Your task to perform on an android device: Open the web browser Image 0: 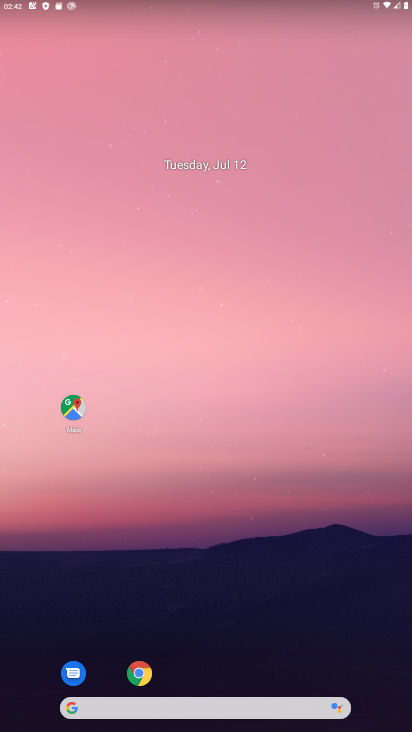
Step 0: click (142, 671)
Your task to perform on an android device: Open the web browser Image 1: 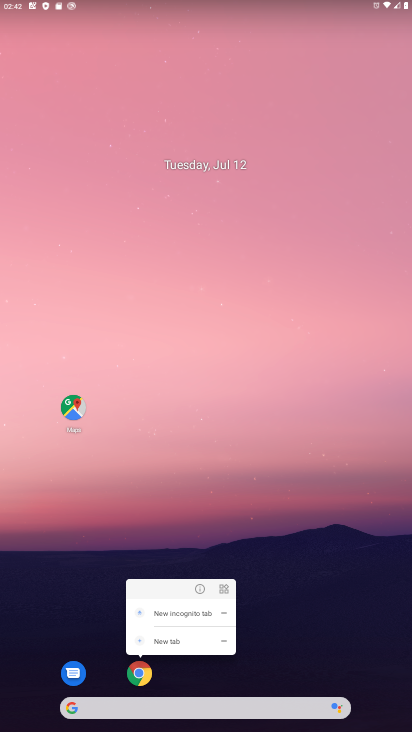
Step 1: click (139, 678)
Your task to perform on an android device: Open the web browser Image 2: 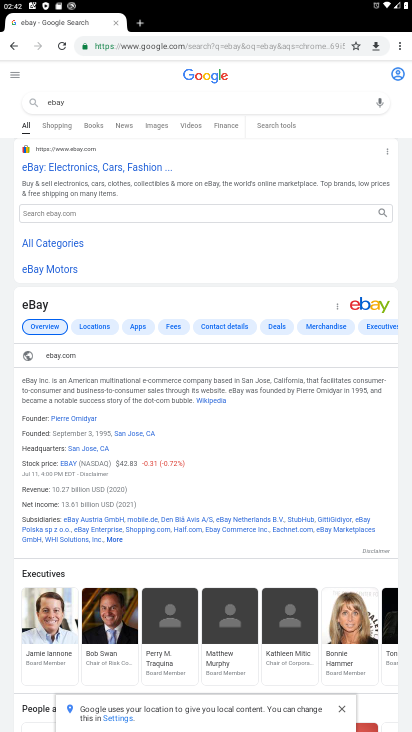
Step 2: task complete